Your task to perform on an android device: toggle translation in the chrome app Image 0: 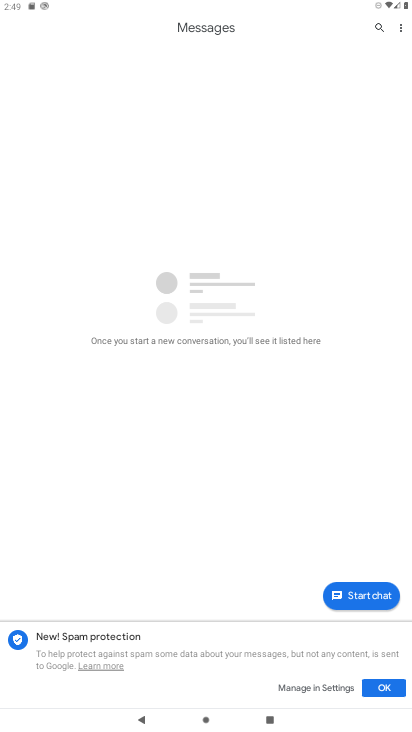
Step 0: press home button
Your task to perform on an android device: toggle translation in the chrome app Image 1: 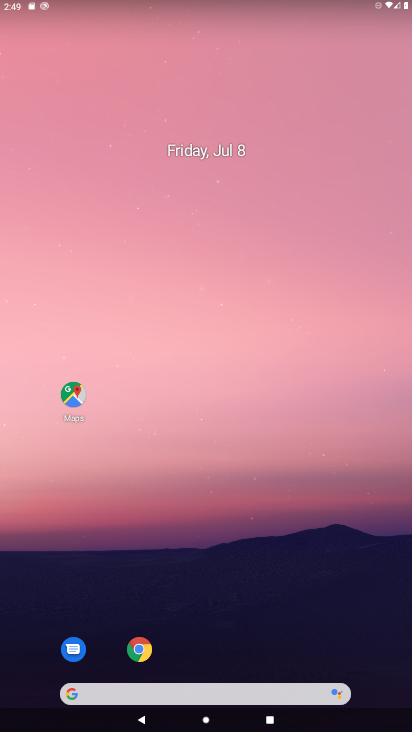
Step 1: click (139, 649)
Your task to perform on an android device: toggle translation in the chrome app Image 2: 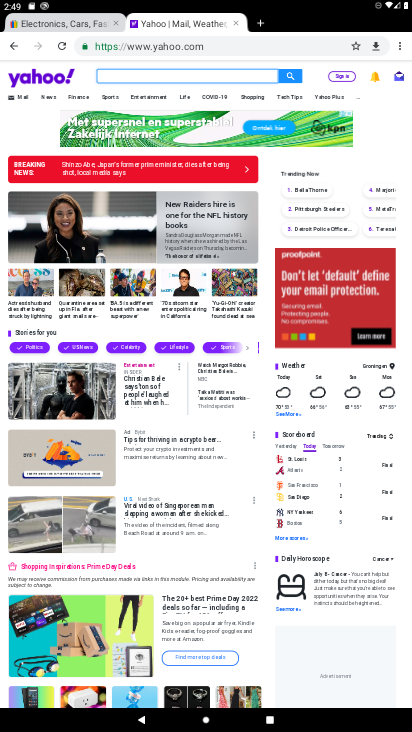
Step 2: click (398, 50)
Your task to perform on an android device: toggle translation in the chrome app Image 3: 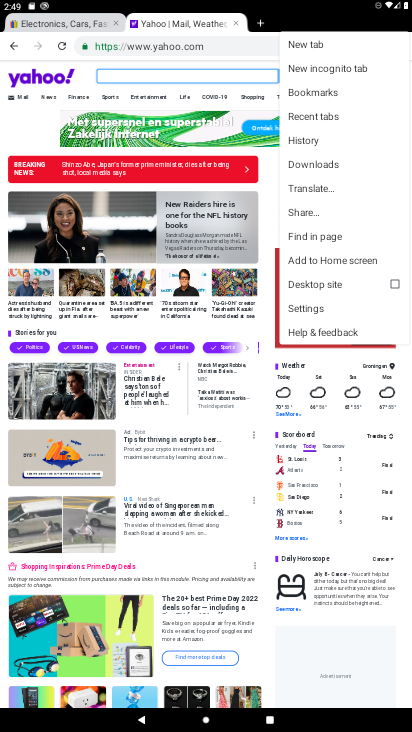
Step 3: click (314, 303)
Your task to perform on an android device: toggle translation in the chrome app Image 4: 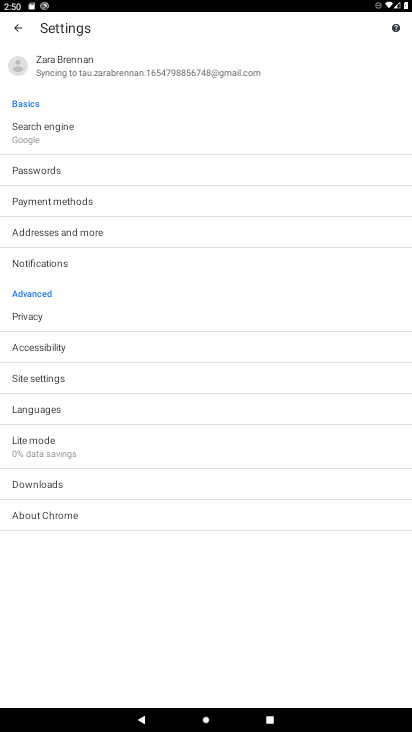
Step 4: click (32, 404)
Your task to perform on an android device: toggle translation in the chrome app Image 5: 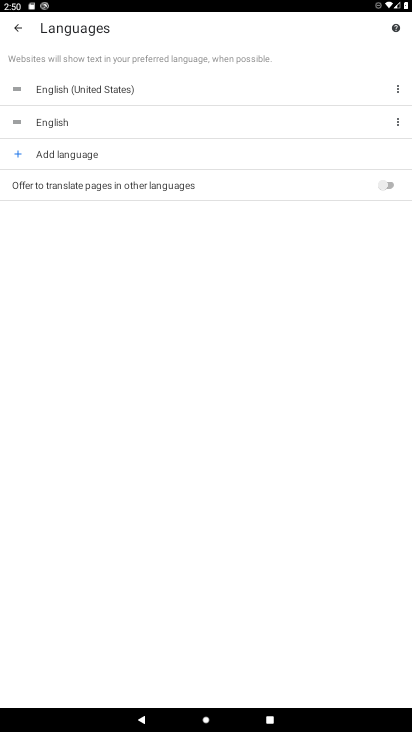
Step 5: click (390, 181)
Your task to perform on an android device: toggle translation in the chrome app Image 6: 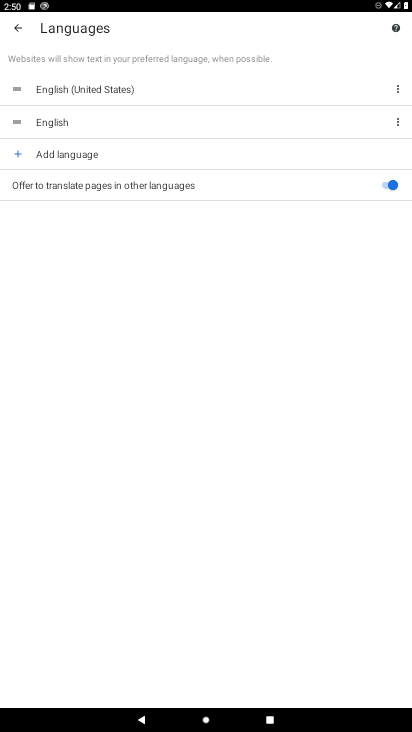
Step 6: task complete